Your task to perform on an android device: turn off priority inbox in the gmail app Image 0: 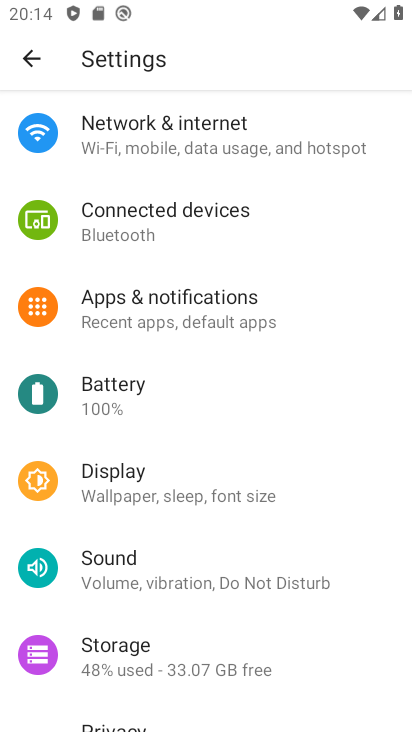
Step 0: press home button
Your task to perform on an android device: turn off priority inbox in the gmail app Image 1: 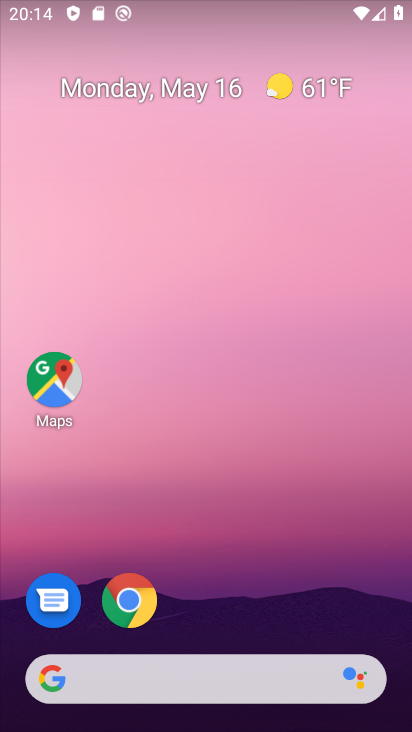
Step 1: drag from (192, 655) to (271, 134)
Your task to perform on an android device: turn off priority inbox in the gmail app Image 2: 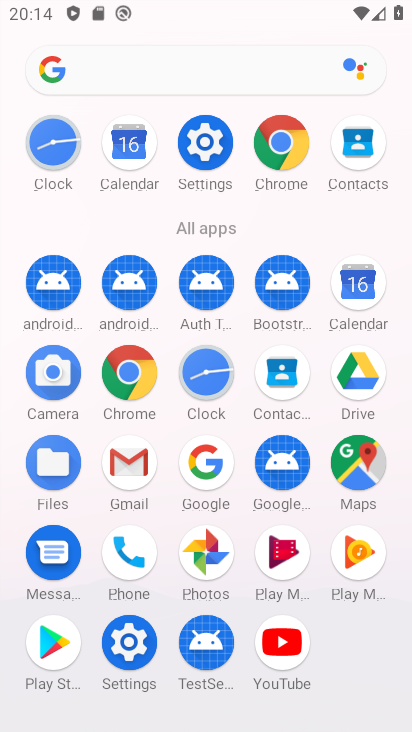
Step 2: click (130, 484)
Your task to perform on an android device: turn off priority inbox in the gmail app Image 3: 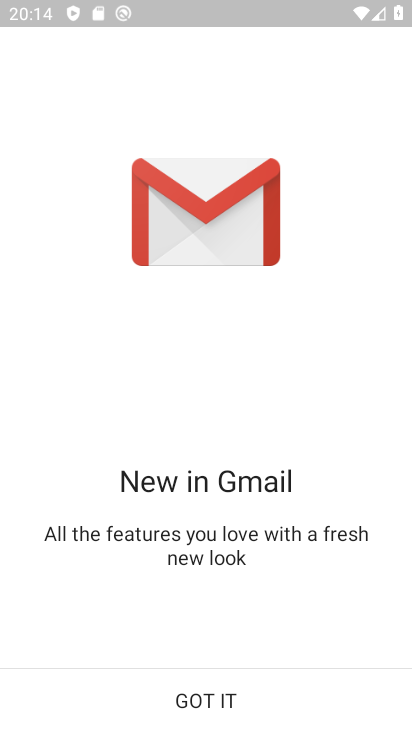
Step 3: click (228, 721)
Your task to perform on an android device: turn off priority inbox in the gmail app Image 4: 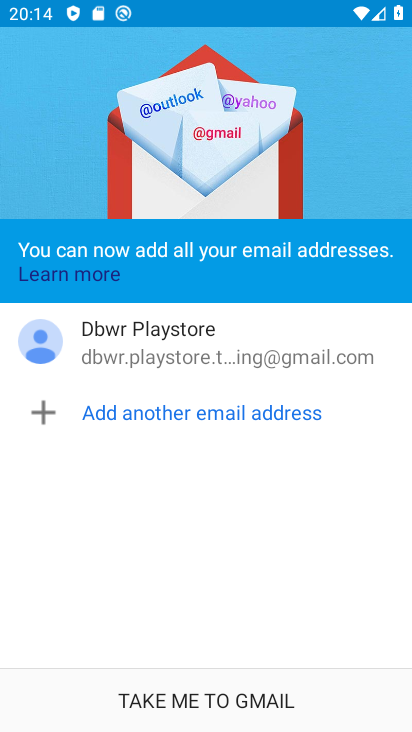
Step 4: click (227, 710)
Your task to perform on an android device: turn off priority inbox in the gmail app Image 5: 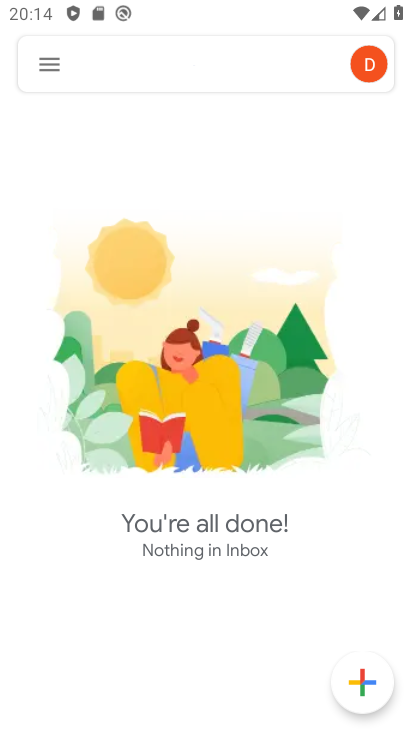
Step 5: click (61, 66)
Your task to perform on an android device: turn off priority inbox in the gmail app Image 6: 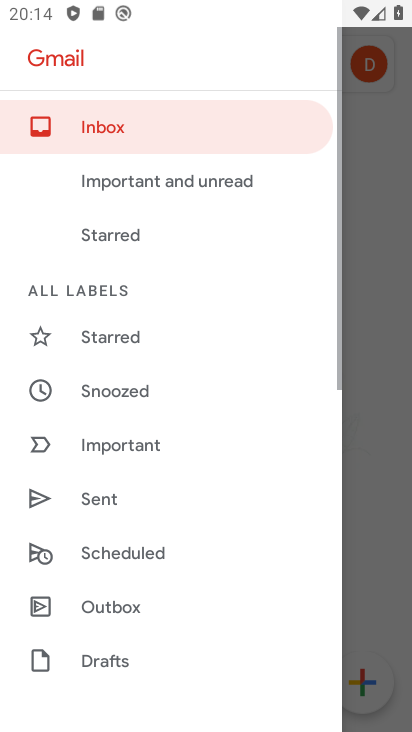
Step 6: drag from (167, 584) to (225, 153)
Your task to perform on an android device: turn off priority inbox in the gmail app Image 7: 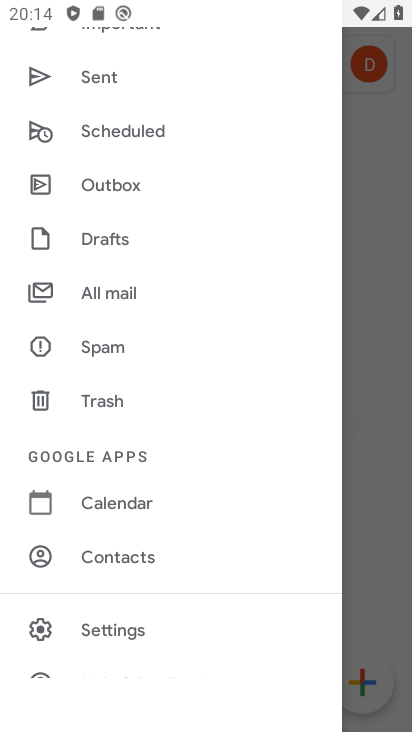
Step 7: click (135, 631)
Your task to perform on an android device: turn off priority inbox in the gmail app Image 8: 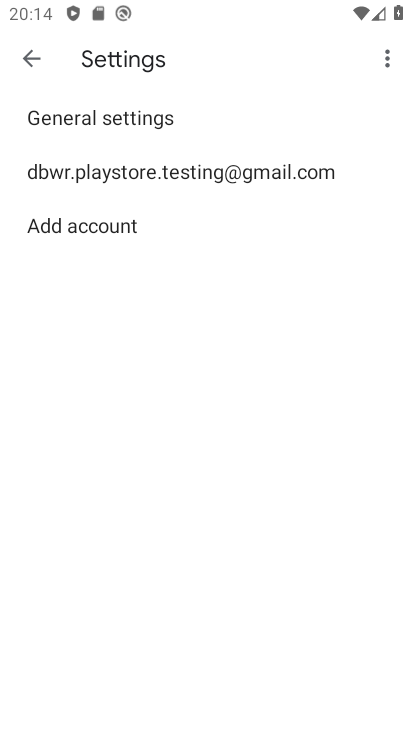
Step 8: click (172, 165)
Your task to perform on an android device: turn off priority inbox in the gmail app Image 9: 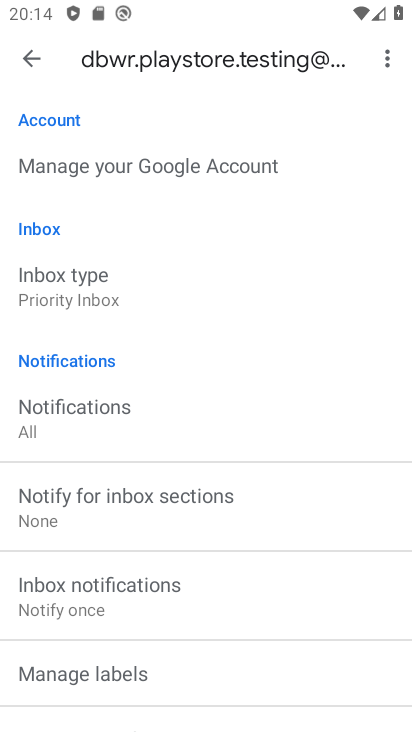
Step 9: drag from (141, 609) to (188, 674)
Your task to perform on an android device: turn off priority inbox in the gmail app Image 10: 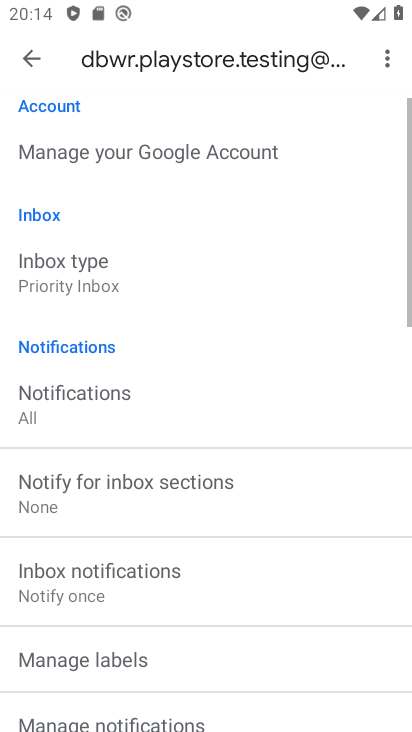
Step 10: click (129, 286)
Your task to perform on an android device: turn off priority inbox in the gmail app Image 11: 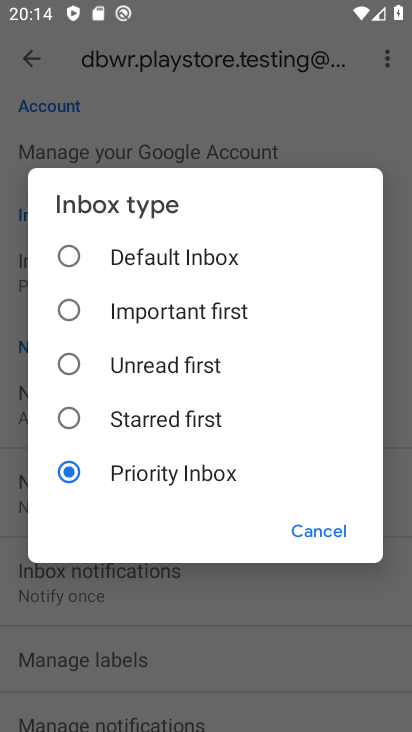
Step 11: click (160, 263)
Your task to perform on an android device: turn off priority inbox in the gmail app Image 12: 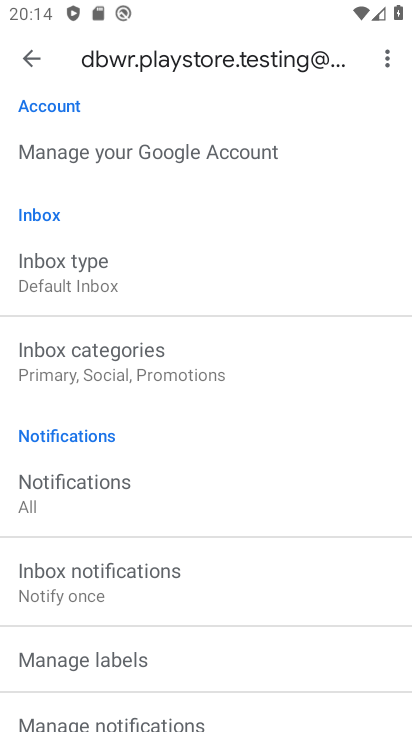
Step 12: task complete